Your task to perform on an android device: Open my contact list Image 0: 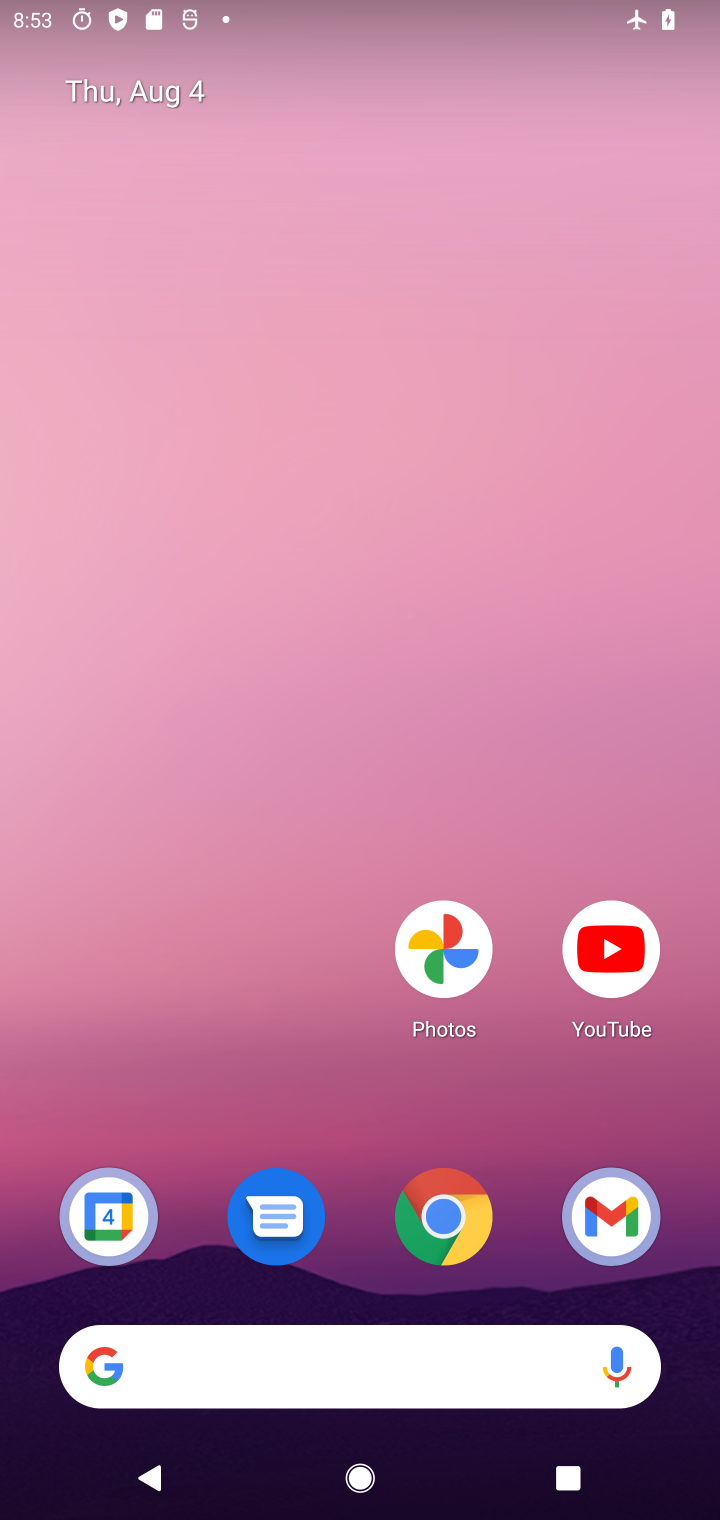
Step 0: press home button
Your task to perform on an android device: Open my contact list Image 1: 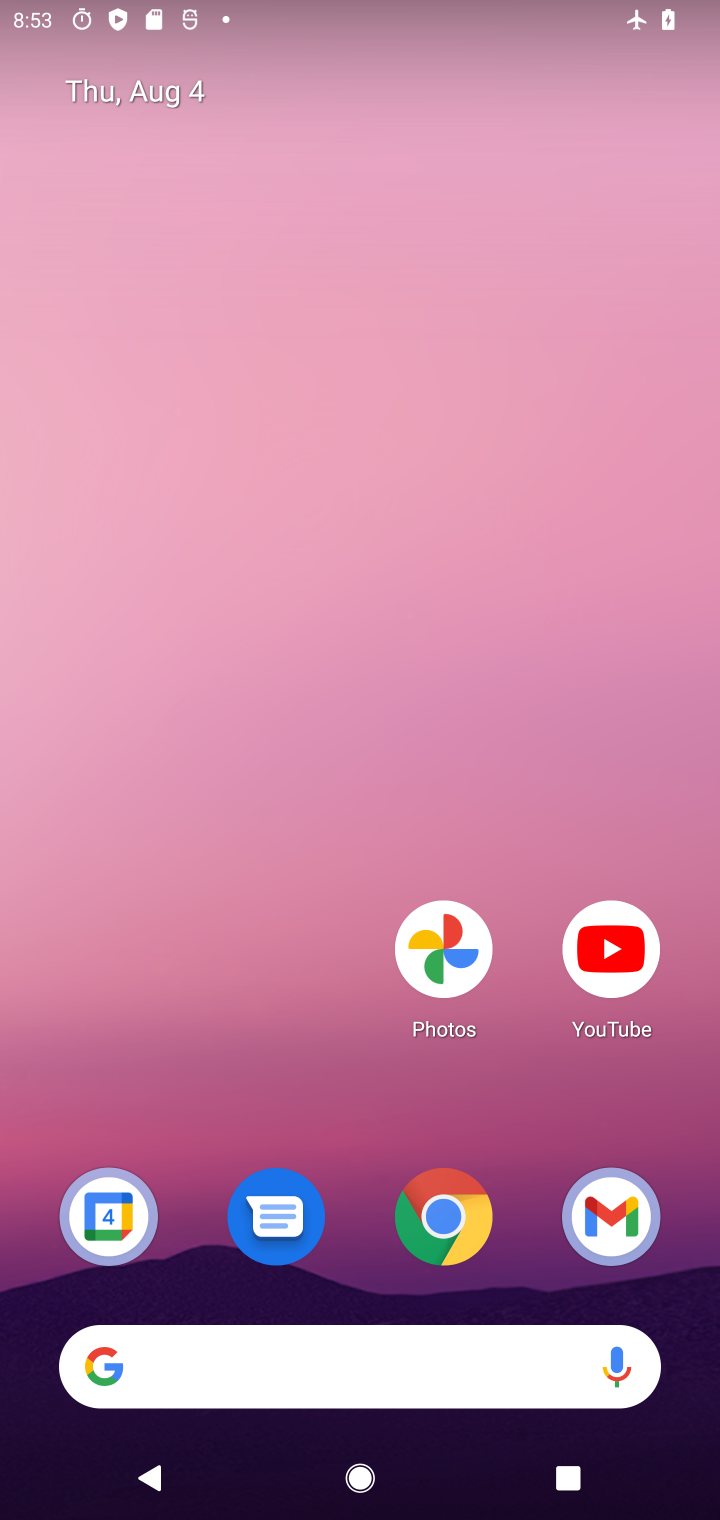
Step 1: drag from (381, 1312) to (343, 218)
Your task to perform on an android device: Open my contact list Image 2: 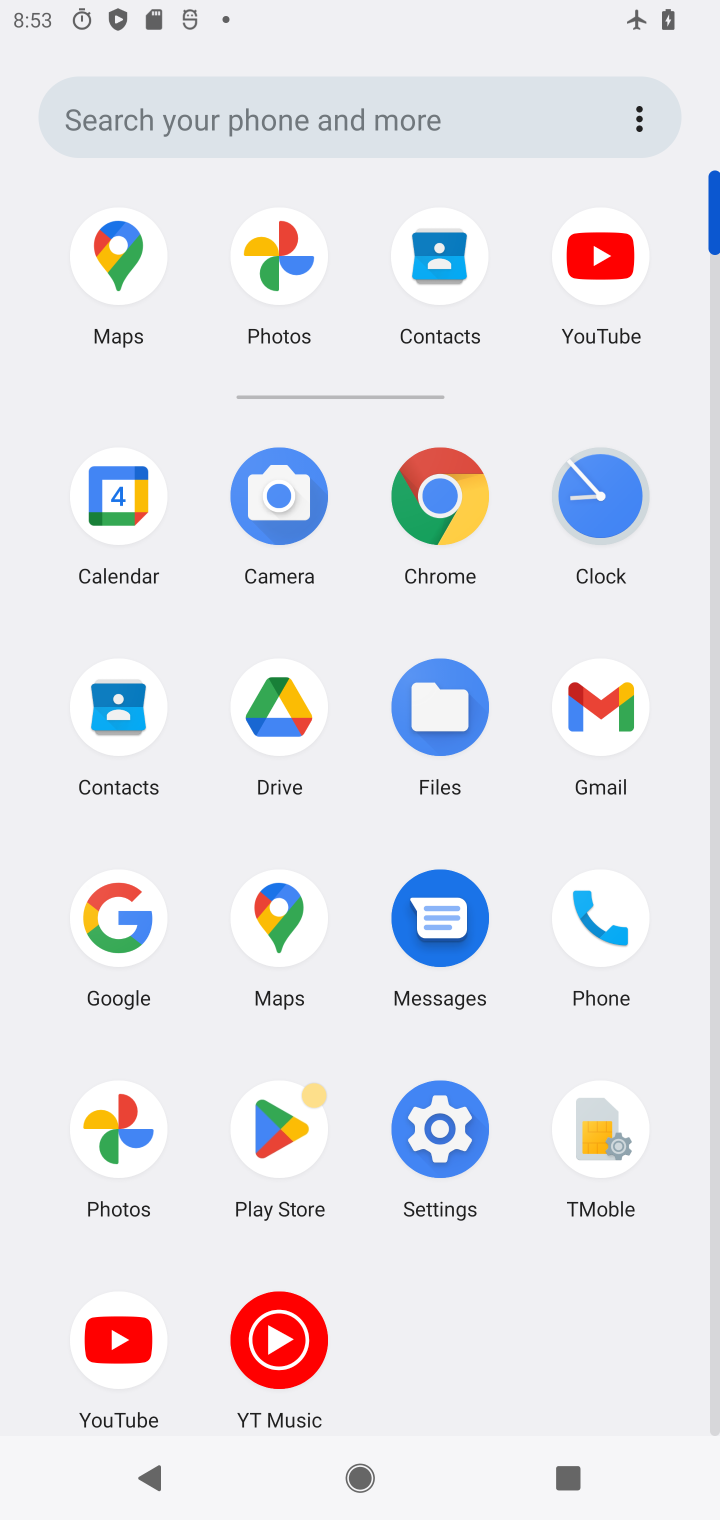
Step 2: click (127, 705)
Your task to perform on an android device: Open my contact list Image 3: 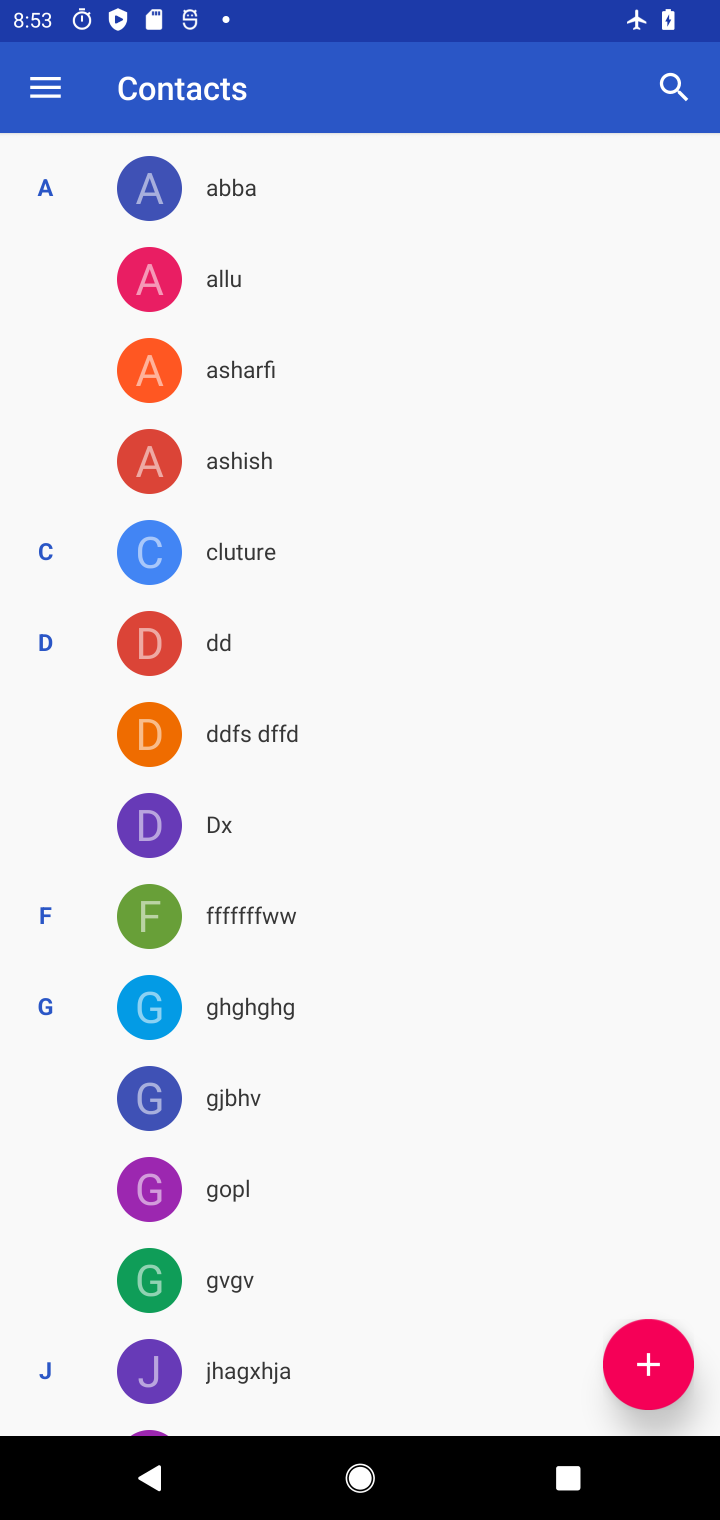
Step 3: task complete